Your task to perform on an android device: move a message to another label in the gmail app Image 0: 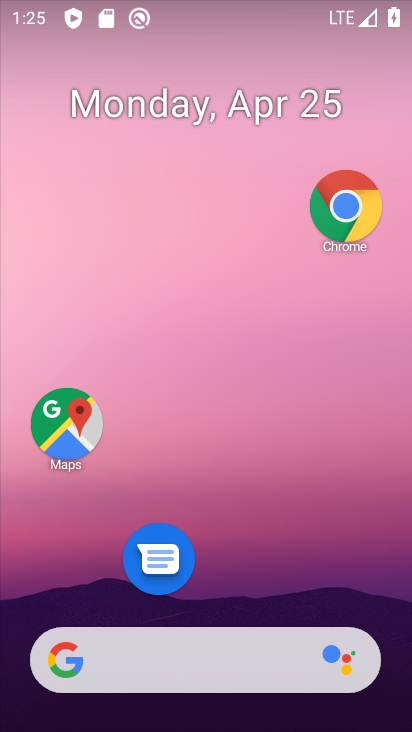
Step 0: drag from (214, 593) to (232, 75)
Your task to perform on an android device: move a message to another label in the gmail app Image 1: 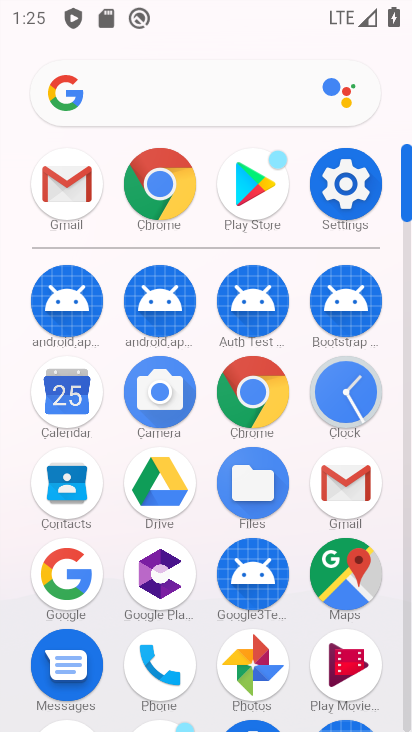
Step 1: click (62, 178)
Your task to perform on an android device: move a message to another label in the gmail app Image 2: 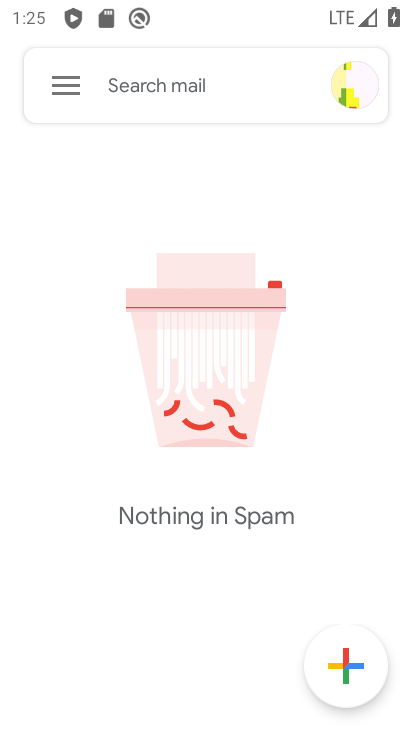
Step 2: click (61, 75)
Your task to perform on an android device: move a message to another label in the gmail app Image 3: 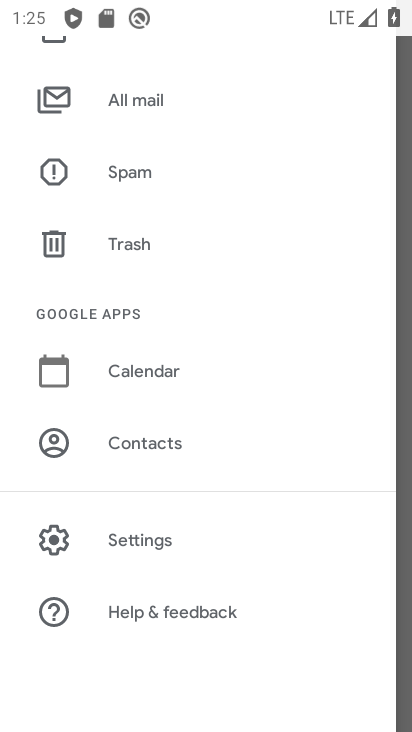
Step 3: click (139, 112)
Your task to perform on an android device: move a message to another label in the gmail app Image 4: 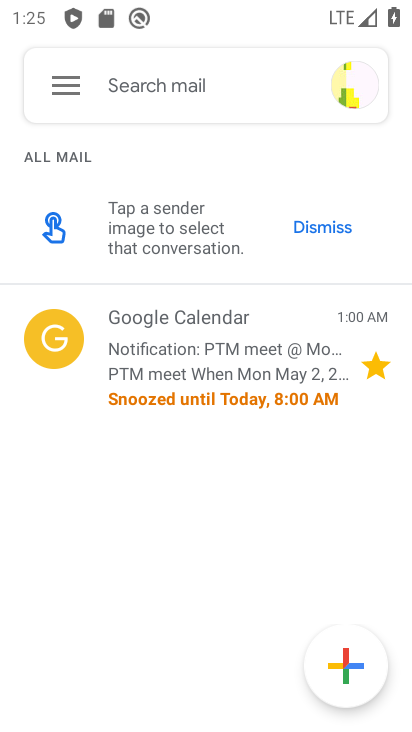
Step 4: click (214, 347)
Your task to perform on an android device: move a message to another label in the gmail app Image 5: 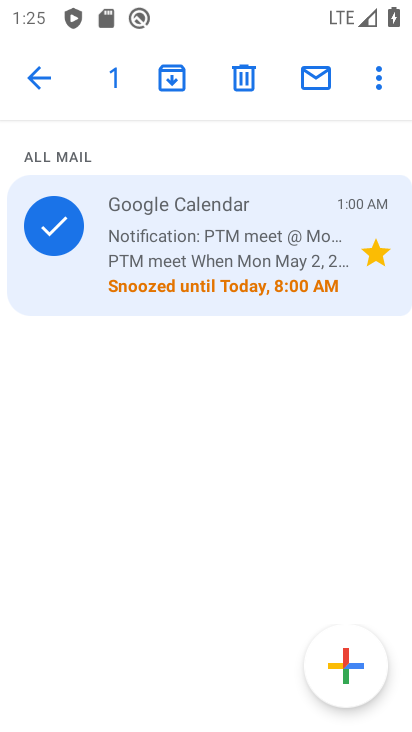
Step 5: click (381, 73)
Your task to perform on an android device: move a message to another label in the gmail app Image 6: 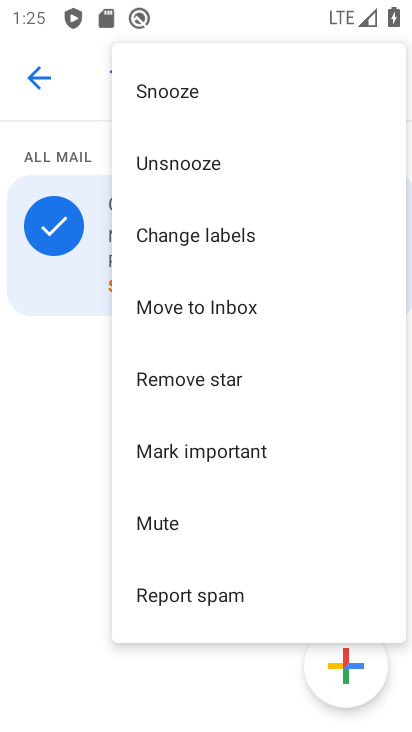
Step 6: click (219, 230)
Your task to perform on an android device: move a message to another label in the gmail app Image 7: 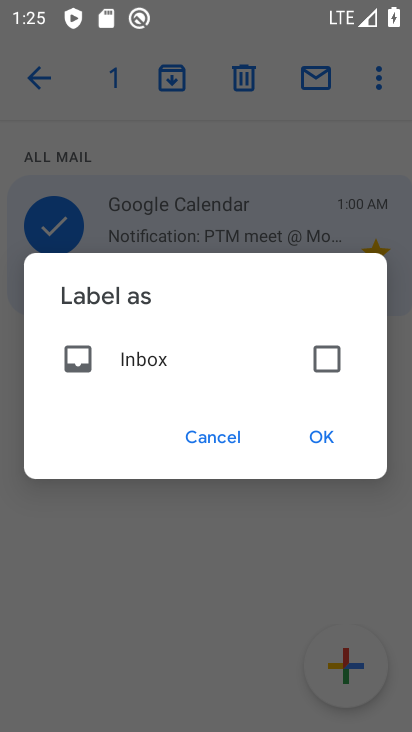
Step 7: click (145, 351)
Your task to perform on an android device: move a message to another label in the gmail app Image 8: 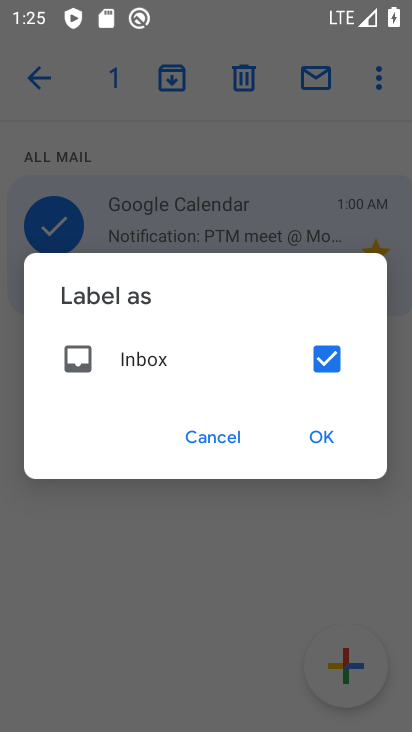
Step 8: click (318, 435)
Your task to perform on an android device: move a message to another label in the gmail app Image 9: 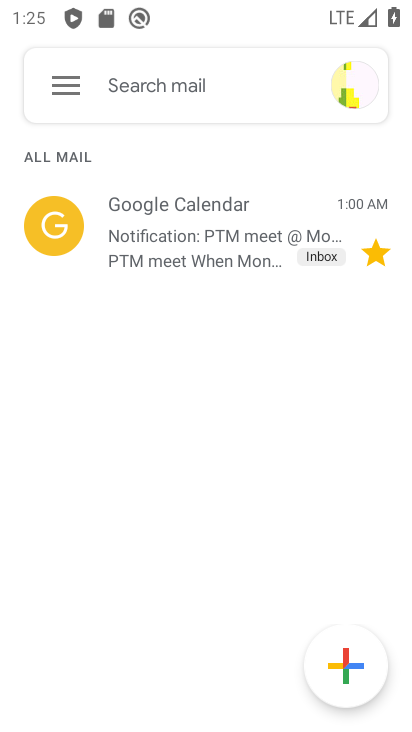
Step 9: task complete